Your task to perform on an android device: install app "Facebook" Image 0: 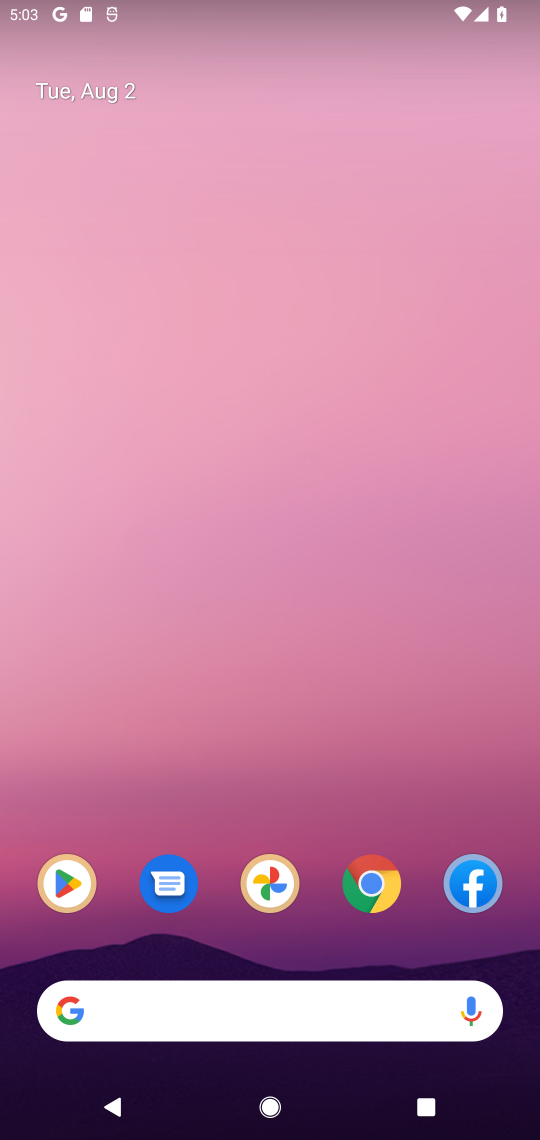
Step 0: drag from (296, 897) to (503, 569)
Your task to perform on an android device: install app "Facebook" Image 1: 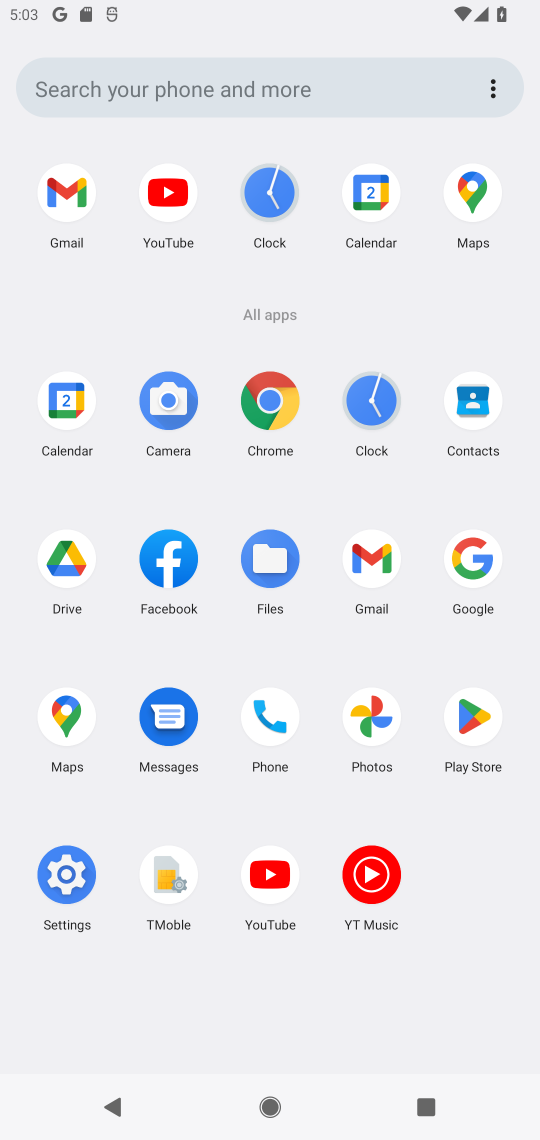
Step 1: click (473, 746)
Your task to perform on an android device: install app "Facebook" Image 2: 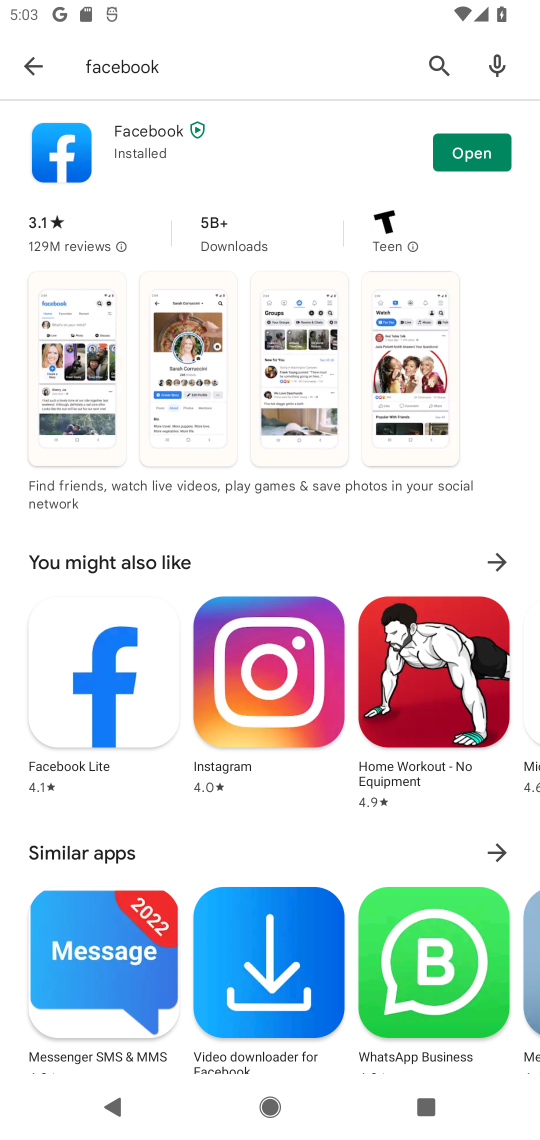
Step 2: click (101, 141)
Your task to perform on an android device: install app "Facebook" Image 3: 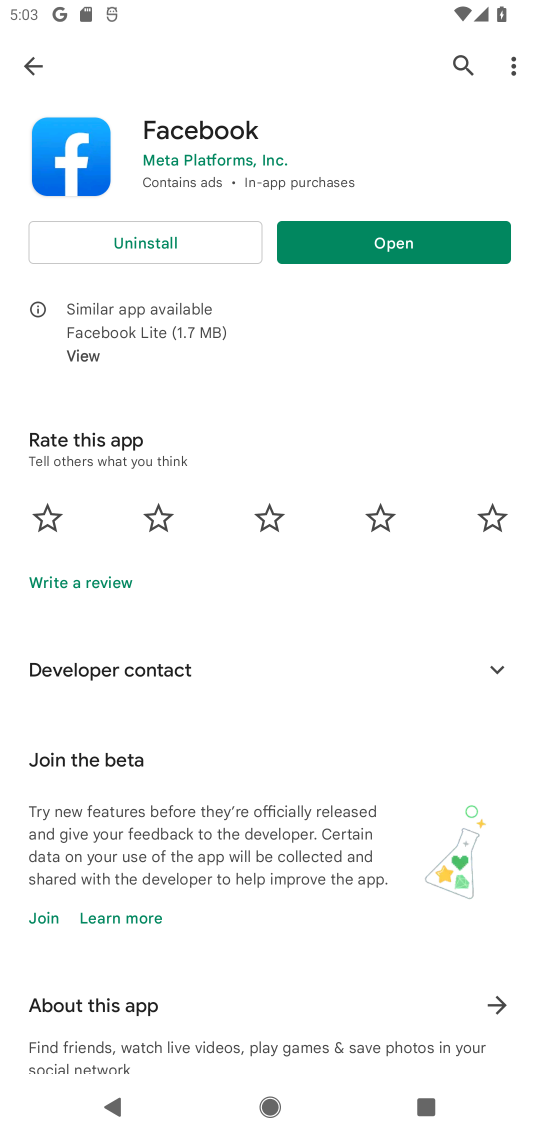
Step 3: click (333, 259)
Your task to perform on an android device: install app "Facebook" Image 4: 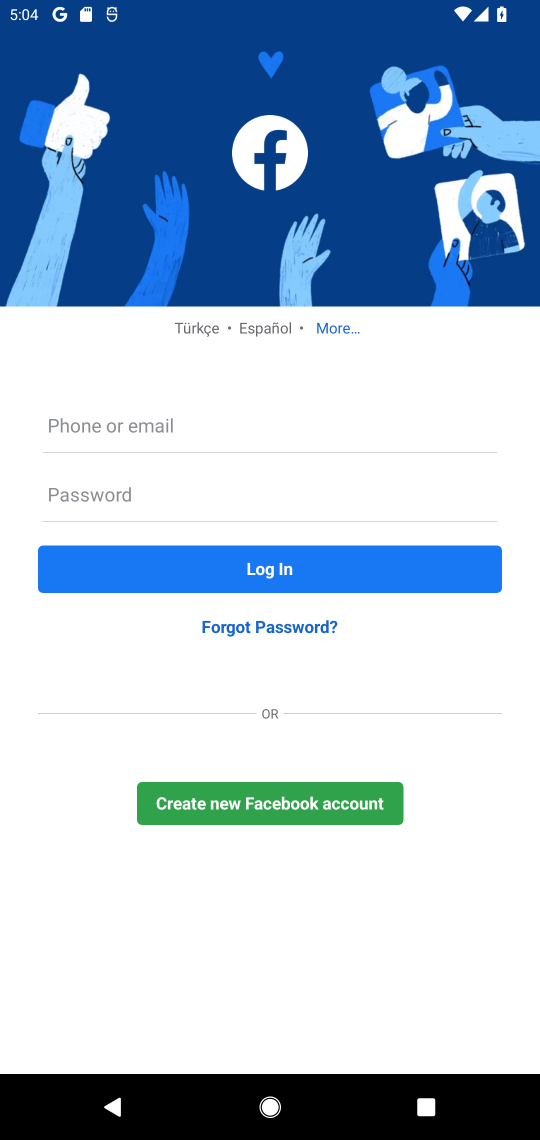
Step 4: task complete